Your task to perform on an android device: remove spam from my inbox in the gmail app Image 0: 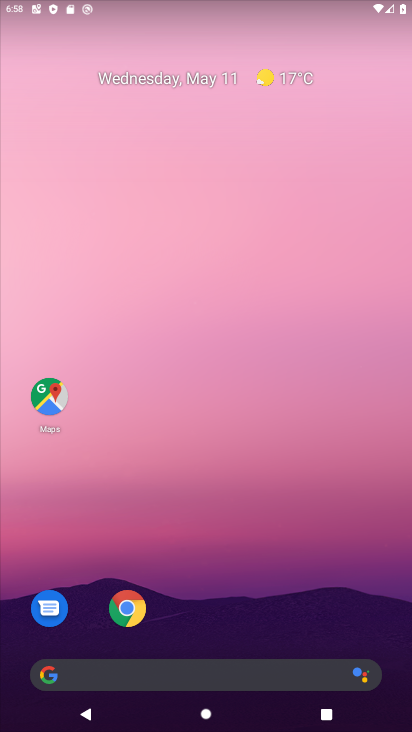
Step 0: drag from (210, 597) to (207, 133)
Your task to perform on an android device: remove spam from my inbox in the gmail app Image 1: 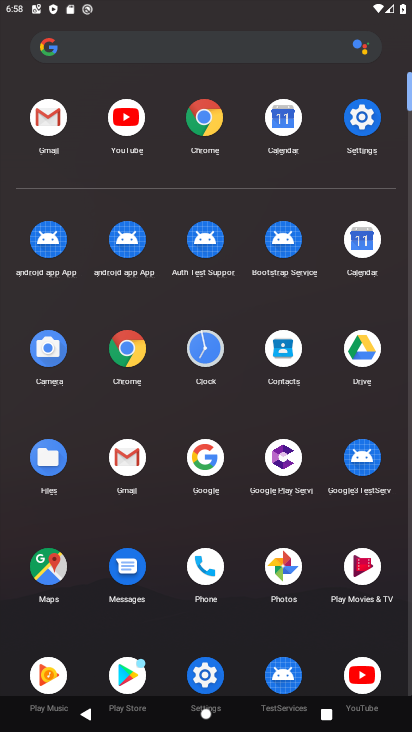
Step 1: drag from (60, 115) to (197, 228)
Your task to perform on an android device: remove spam from my inbox in the gmail app Image 2: 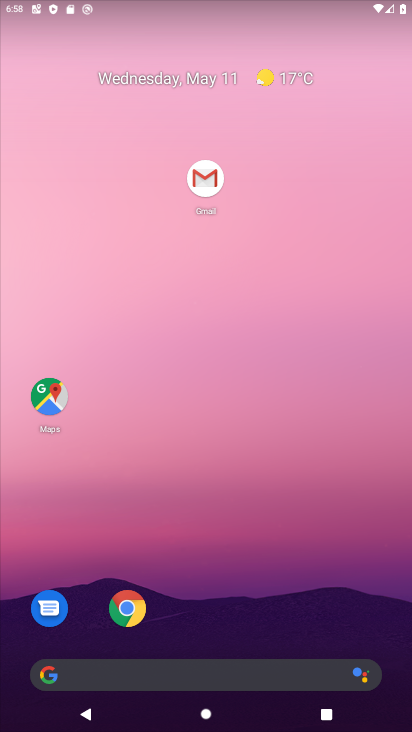
Step 2: click (207, 189)
Your task to perform on an android device: remove spam from my inbox in the gmail app Image 3: 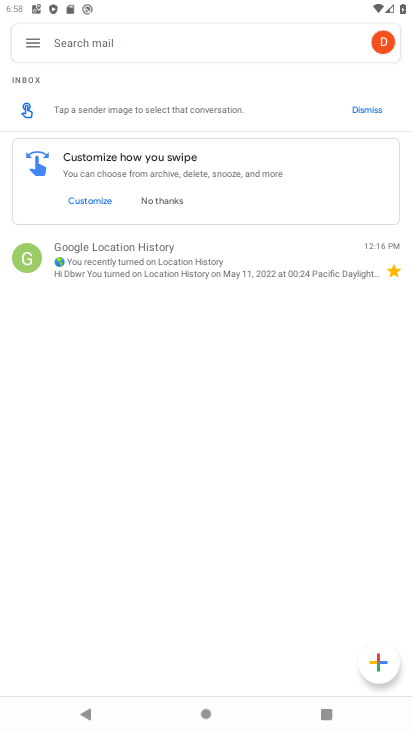
Step 3: click (33, 43)
Your task to perform on an android device: remove spam from my inbox in the gmail app Image 4: 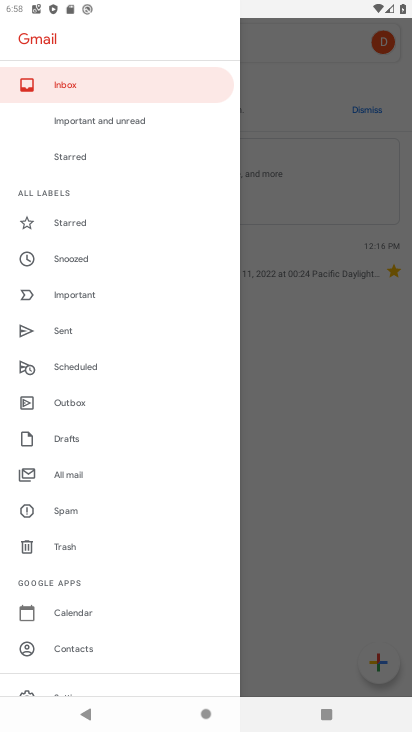
Step 4: click (82, 517)
Your task to perform on an android device: remove spam from my inbox in the gmail app Image 5: 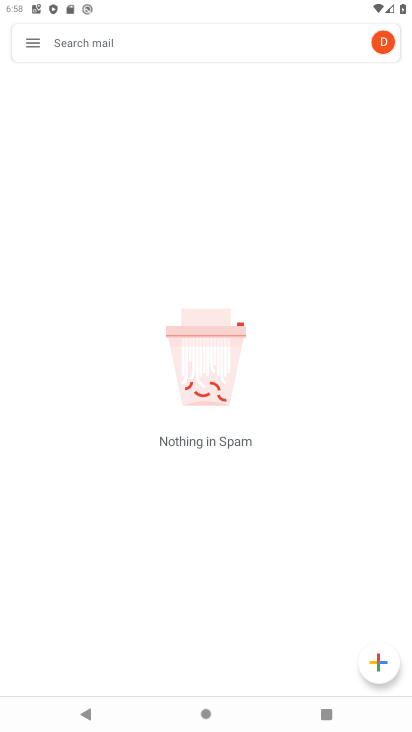
Step 5: click (32, 50)
Your task to perform on an android device: remove spam from my inbox in the gmail app Image 6: 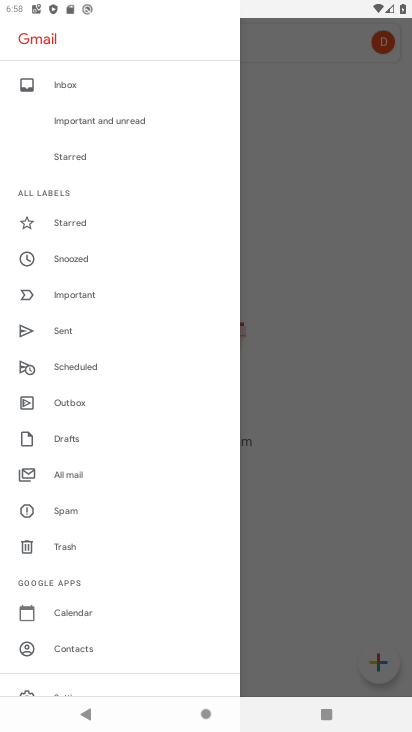
Step 6: click (105, 85)
Your task to perform on an android device: remove spam from my inbox in the gmail app Image 7: 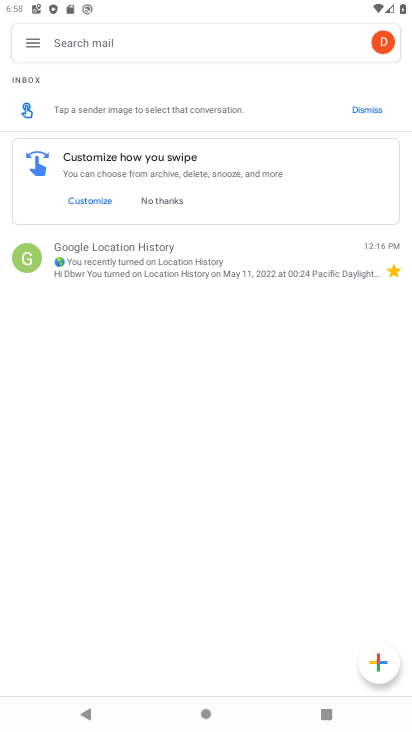
Step 7: task complete